Your task to perform on an android device: open app "Lyft - Rideshare, Bikes, Scooters & Transit" (install if not already installed) Image 0: 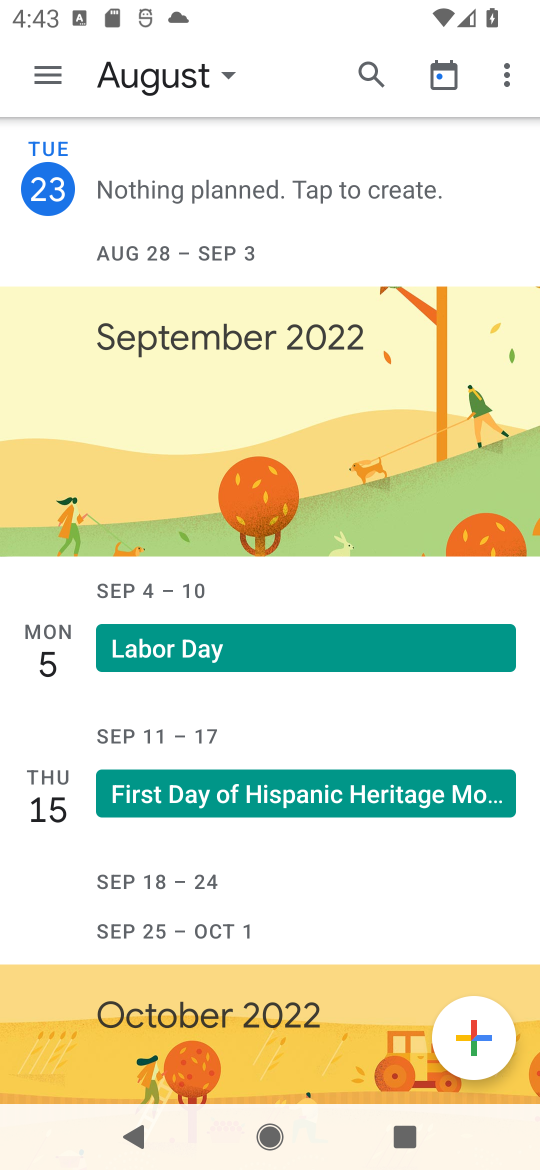
Step 0: press home button
Your task to perform on an android device: open app "Lyft - Rideshare, Bikes, Scooters & Transit" (install if not already installed) Image 1: 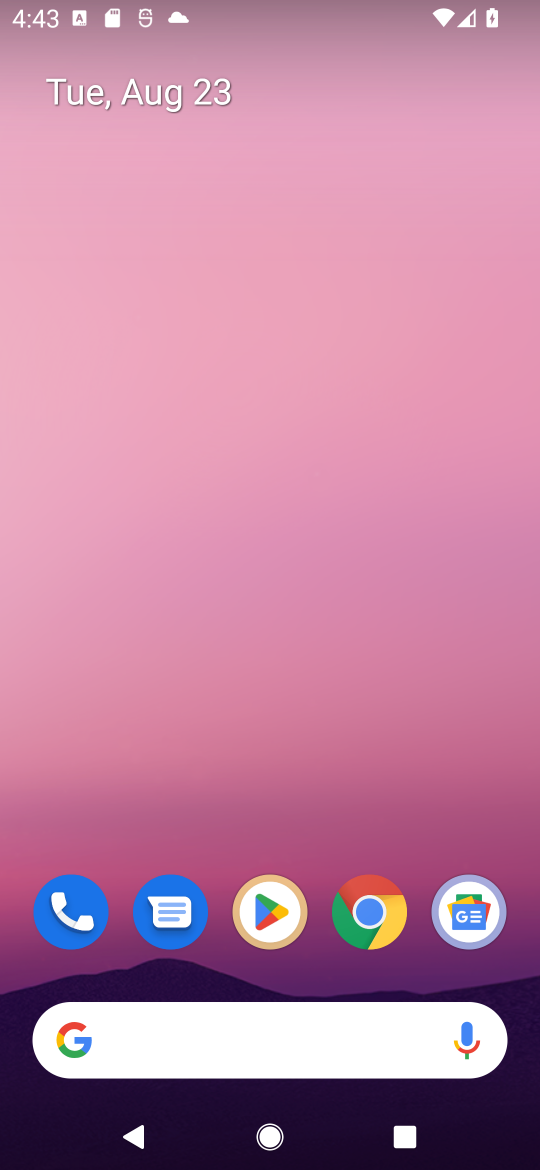
Step 1: drag from (215, 1061) to (285, 105)
Your task to perform on an android device: open app "Lyft - Rideshare, Bikes, Scooters & Transit" (install if not already installed) Image 2: 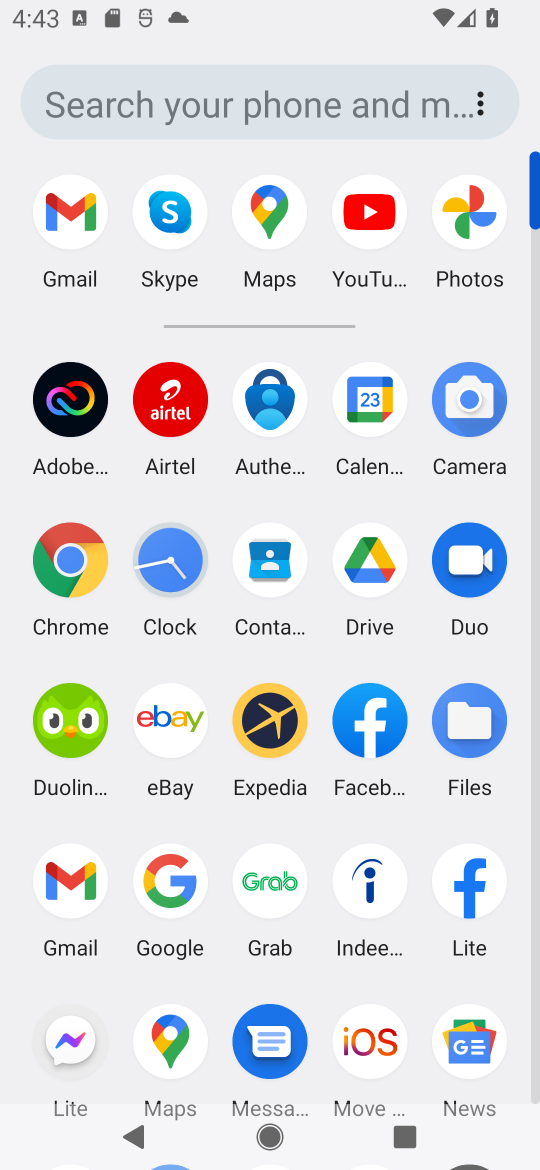
Step 2: drag from (307, 1000) to (298, 492)
Your task to perform on an android device: open app "Lyft - Rideshare, Bikes, Scooters & Transit" (install if not already installed) Image 3: 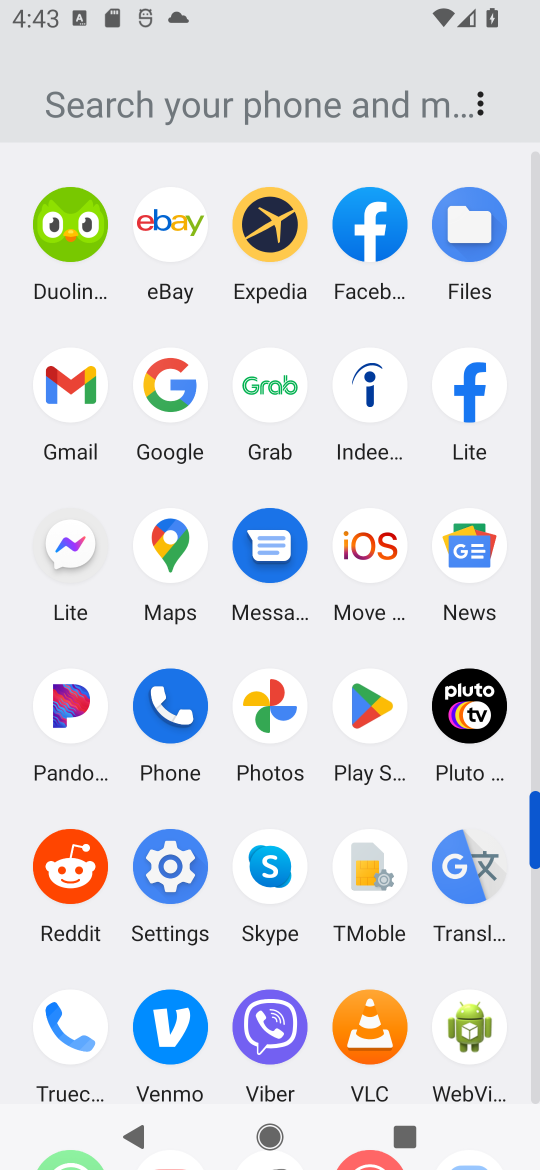
Step 3: click (368, 710)
Your task to perform on an android device: open app "Lyft - Rideshare, Bikes, Scooters & Transit" (install if not already installed) Image 4: 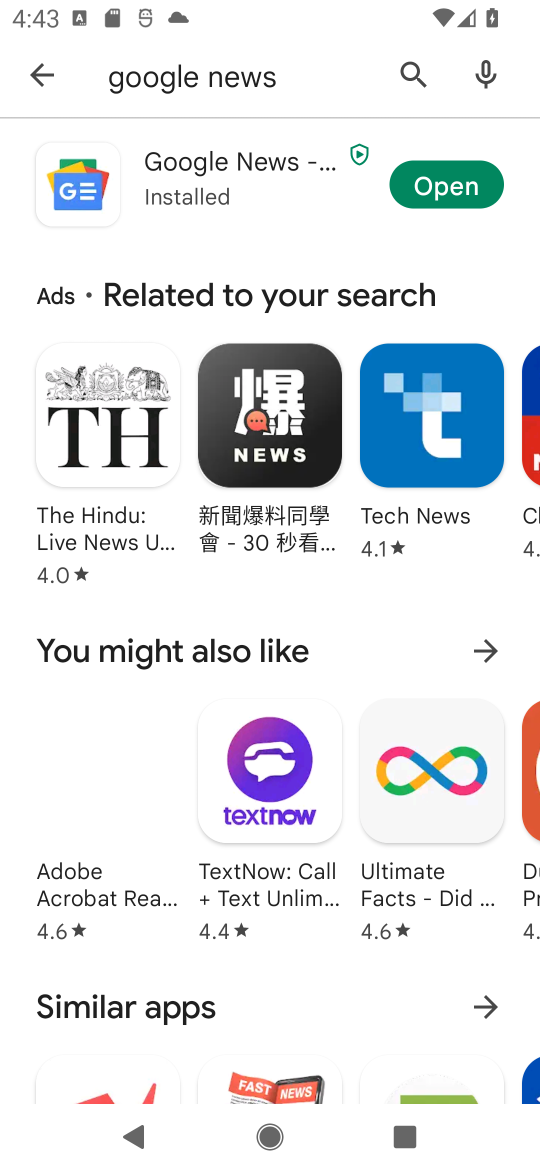
Step 4: press back button
Your task to perform on an android device: open app "Lyft - Rideshare, Bikes, Scooters & Transit" (install if not already installed) Image 5: 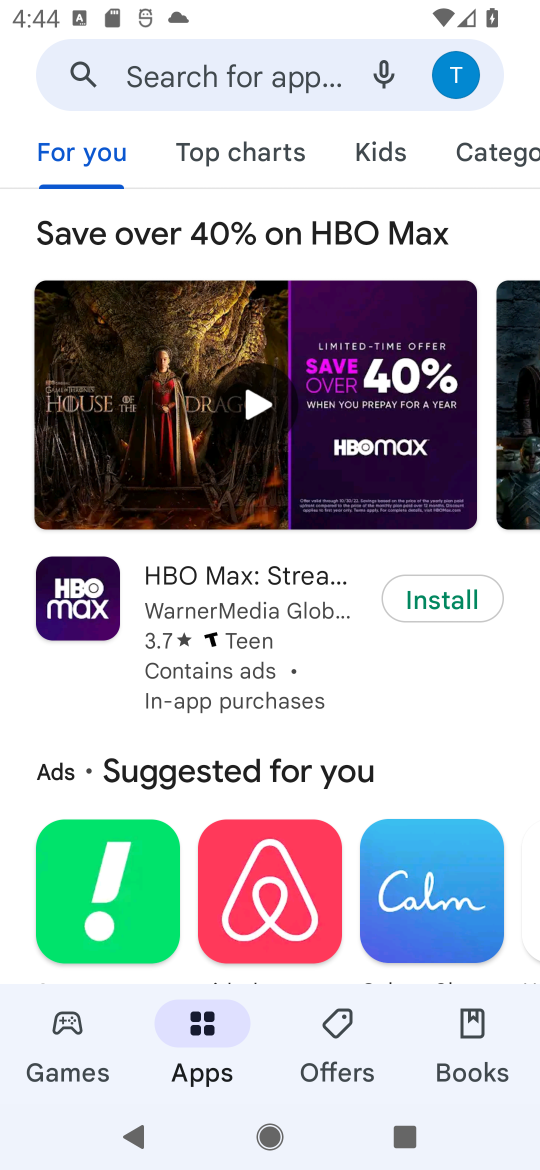
Step 5: click (295, 87)
Your task to perform on an android device: open app "Lyft - Rideshare, Bikes, Scooters & Transit" (install if not already installed) Image 6: 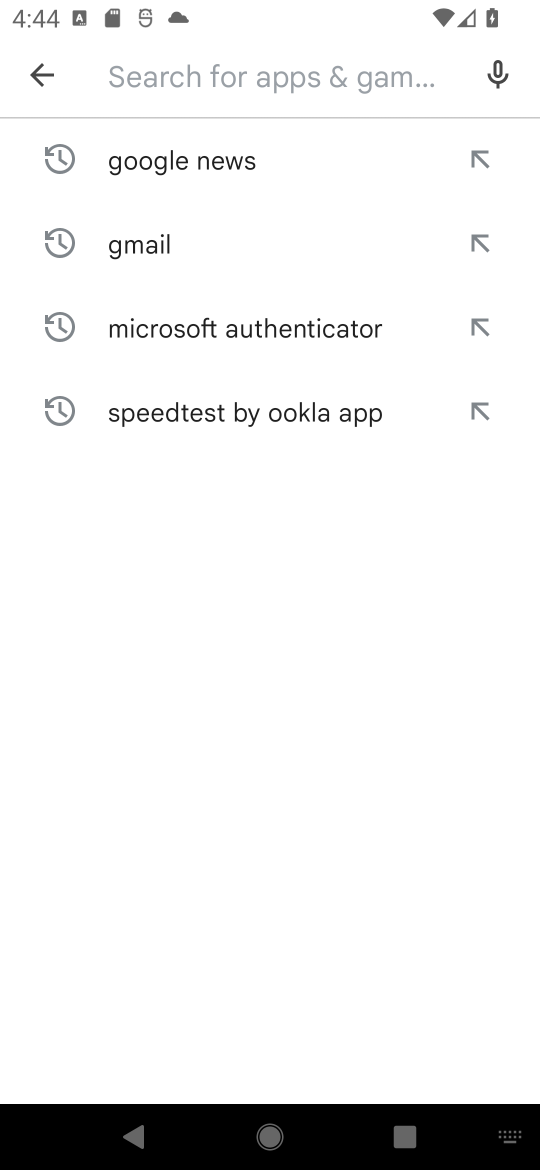
Step 6: click (172, 73)
Your task to perform on an android device: open app "Lyft - Rideshare, Bikes, Scooters & Transit" (install if not already installed) Image 7: 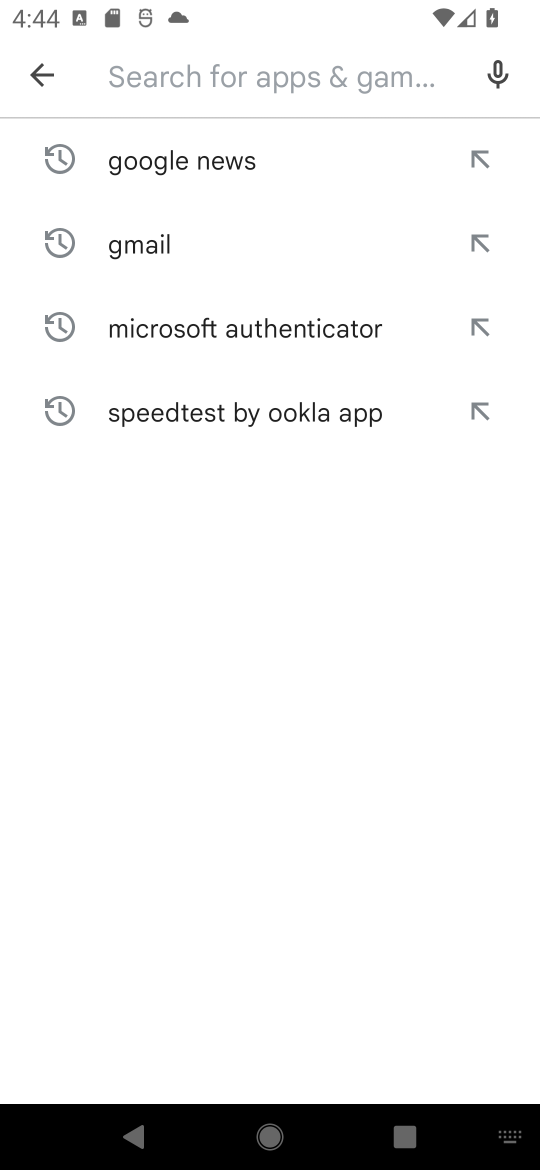
Step 7: type "Lyft - Rideshare, Bikes, Scooters & Transit"
Your task to perform on an android device: open app "Lyft - Rideshare, Bikes, Scooters & Transit" (install if not already installed) Image 8: 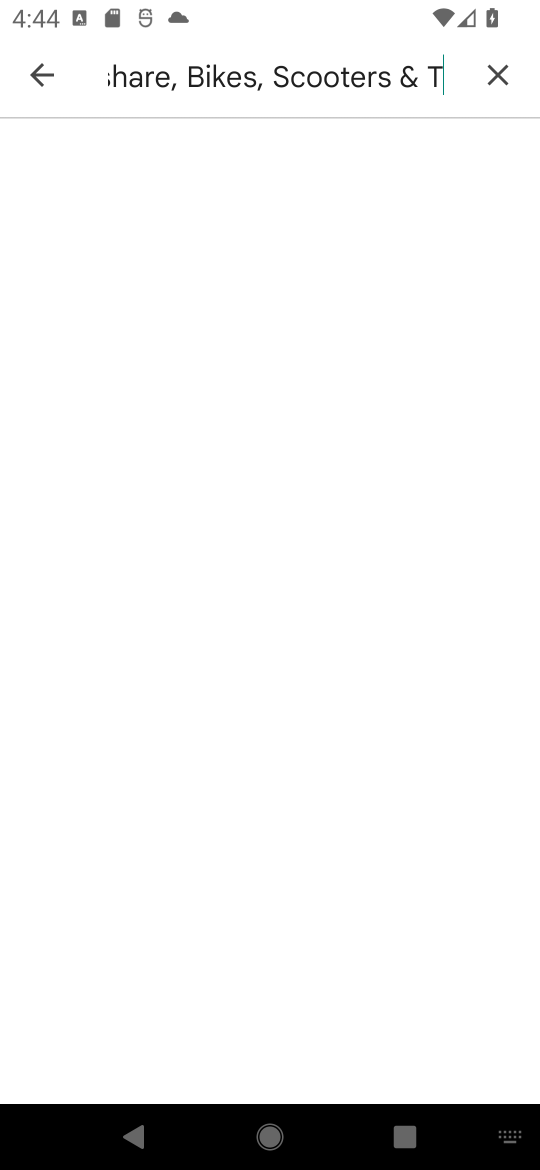
Step 8: type ""
Your task to perform on an android device: open app "Lyft - Rideshare, Bikes, Scooters & Transit" (install if not already installed) Image 9: 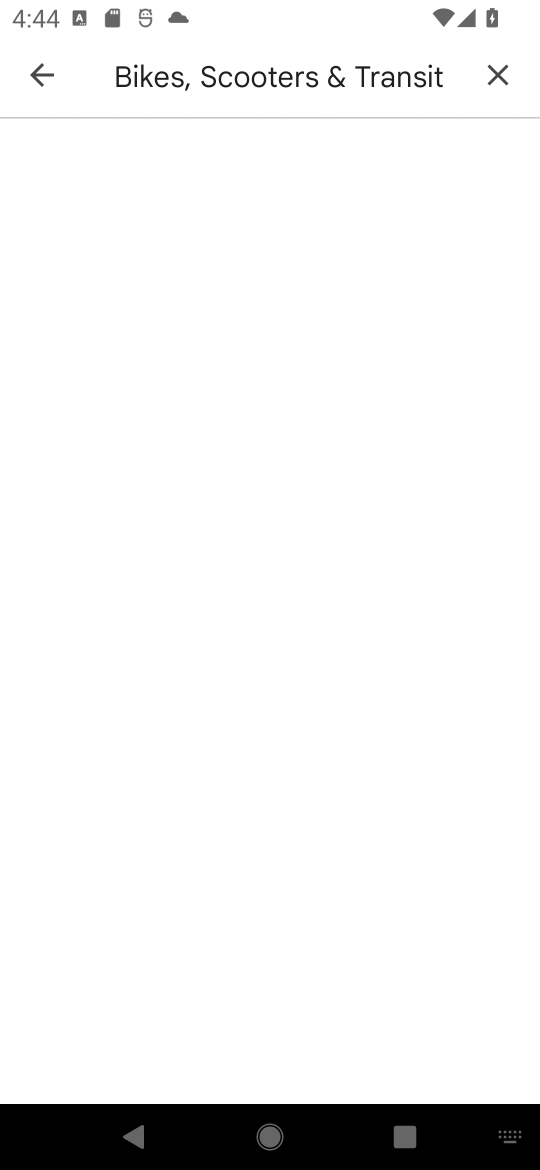
Step 9: task complete